Your task to perform on an android device: turn on sleep mode Image 0: 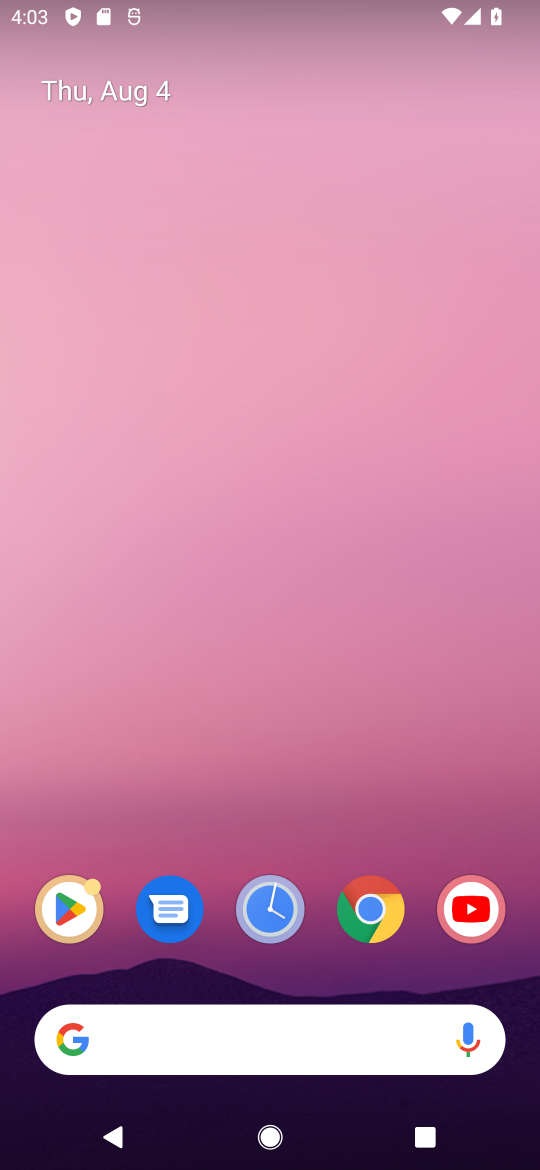
Step 0: drag from (401, 226) to (229, 0)
Your task to perform on an android device: turn on sleep mode Image 1: 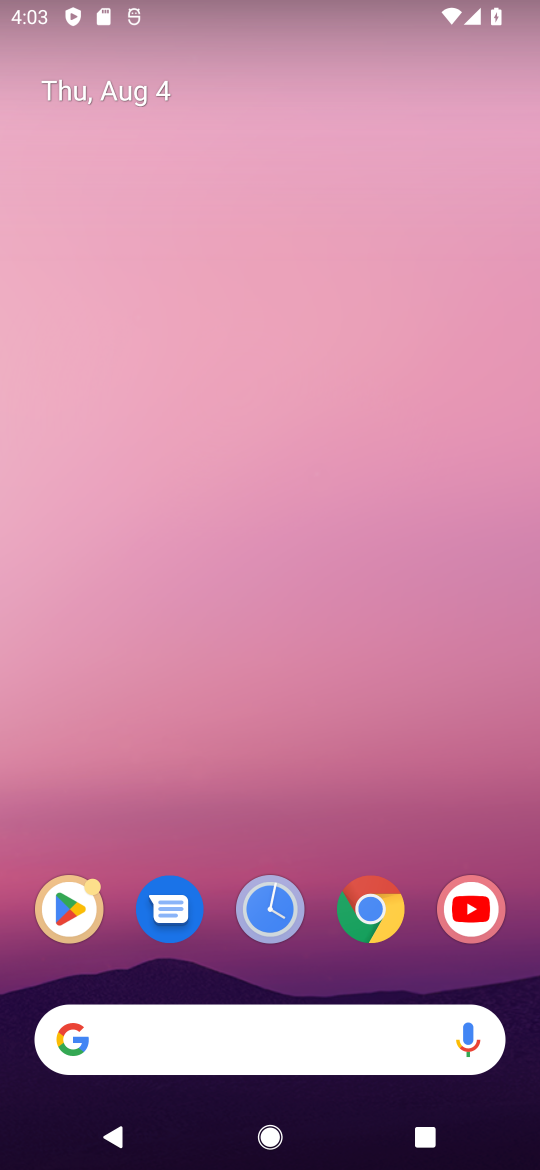
Step 1: drag from (307, 123) to (407, 13)
Your task to perform on an android device: turn on sleep mode Image 2: 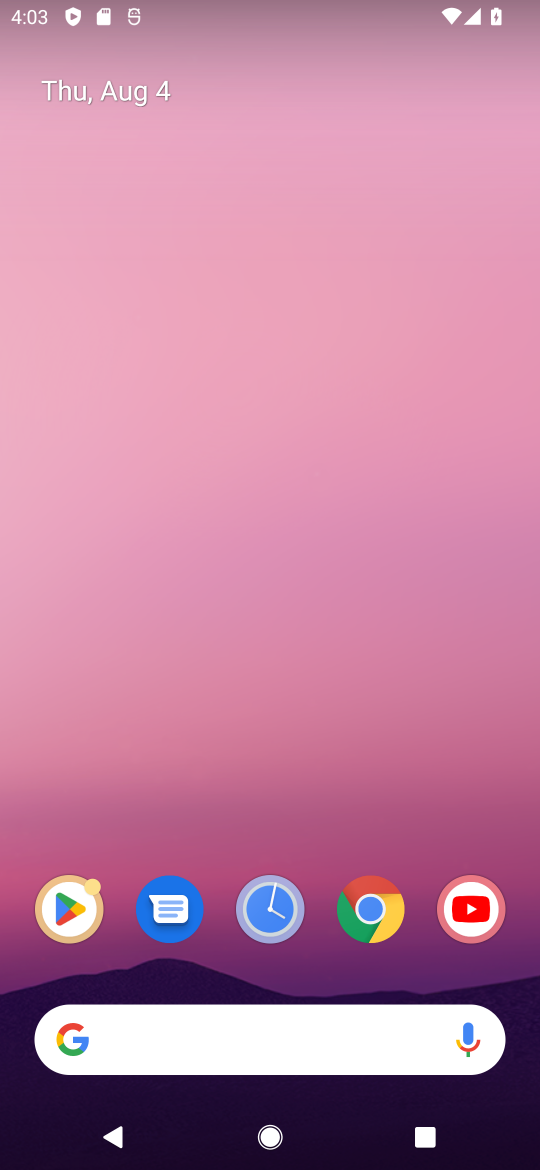
Step 2: drag from (320, 770) to (526, 374)
Your task to perform on an android device: turn on sleep mode Image 3: 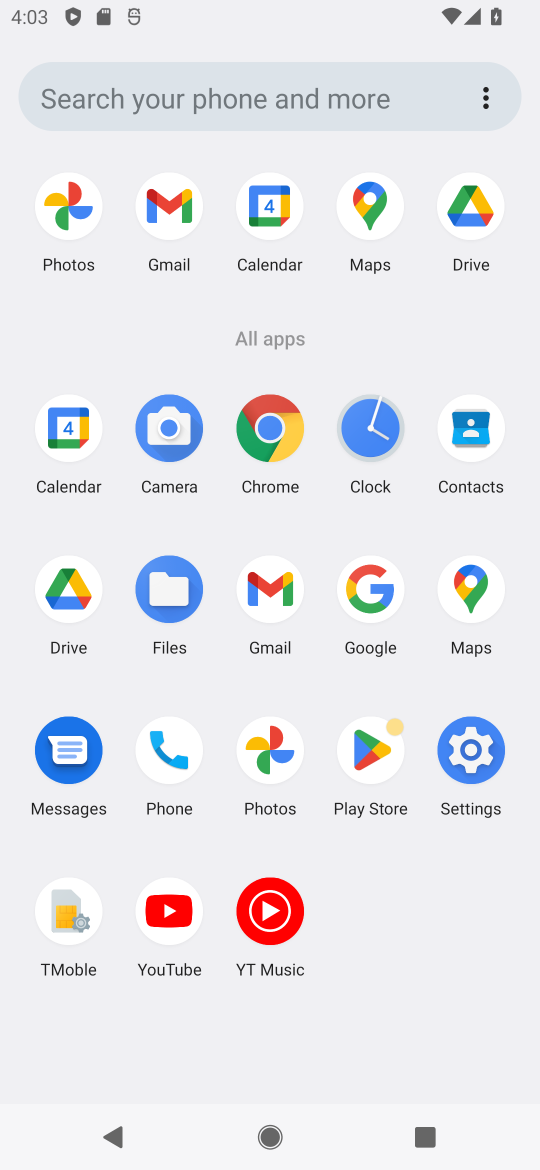
Step 3: click (467, 768)
Your task to perform on an android device: turn on sleep mode Image 4: 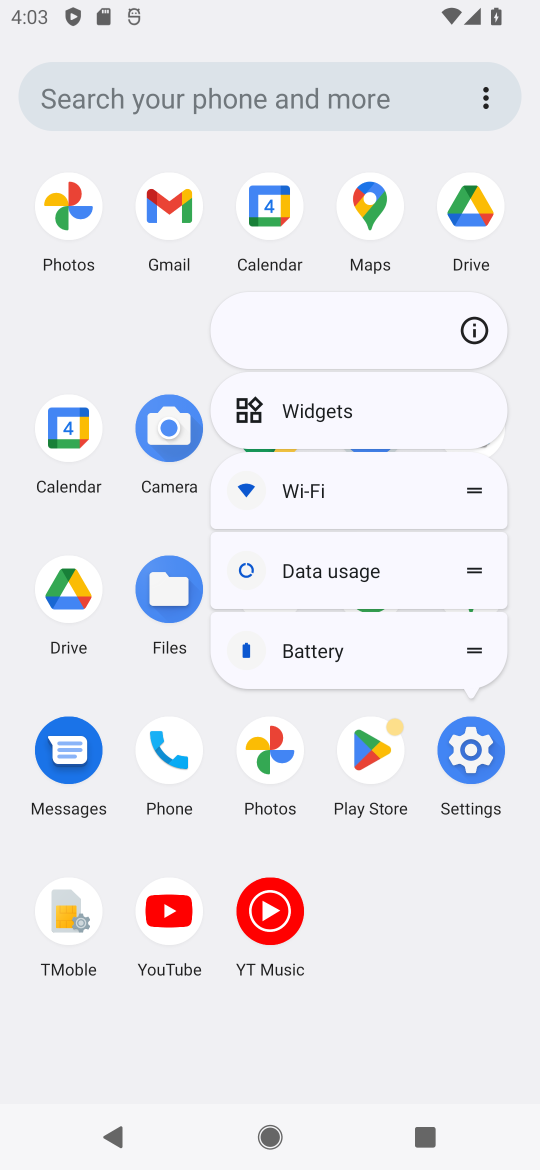
Step 4: click (480, 739)
Your task to perform on an android device: turn on sleep mode Image 5: 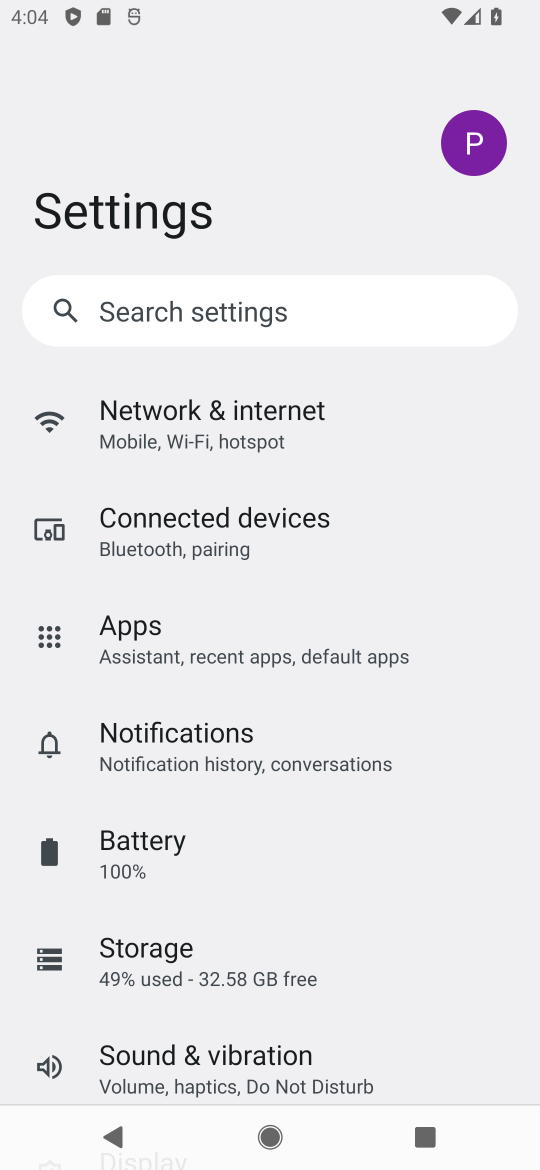
Step 5: drag from (287, 894) to (308, 391)
Your task to perform on an android device: turn on sleep mode Image 6: 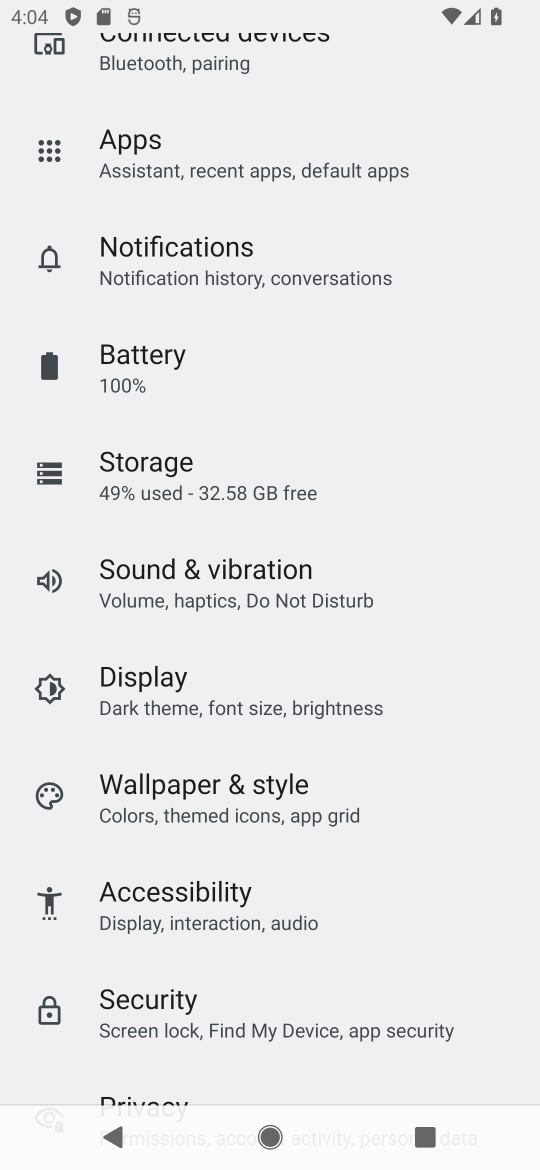
Step 6: click (177, 1097)
Your task to perform on an android device: turn on sleep mode Image 7: 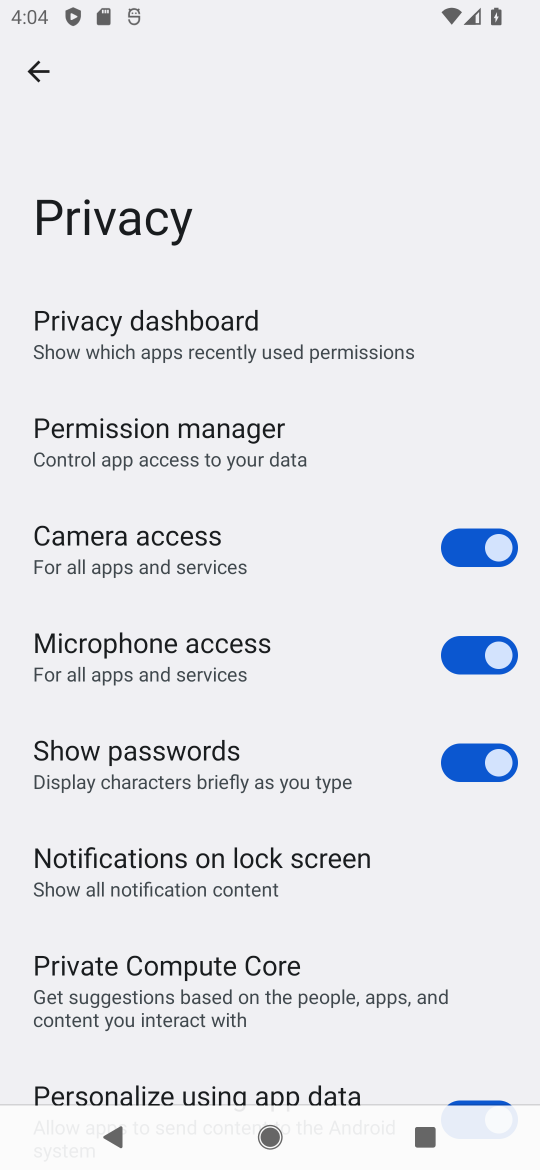
Step 7: click (37, 72)
Your task to perform on an android device: turn on sleep mode Image 8: 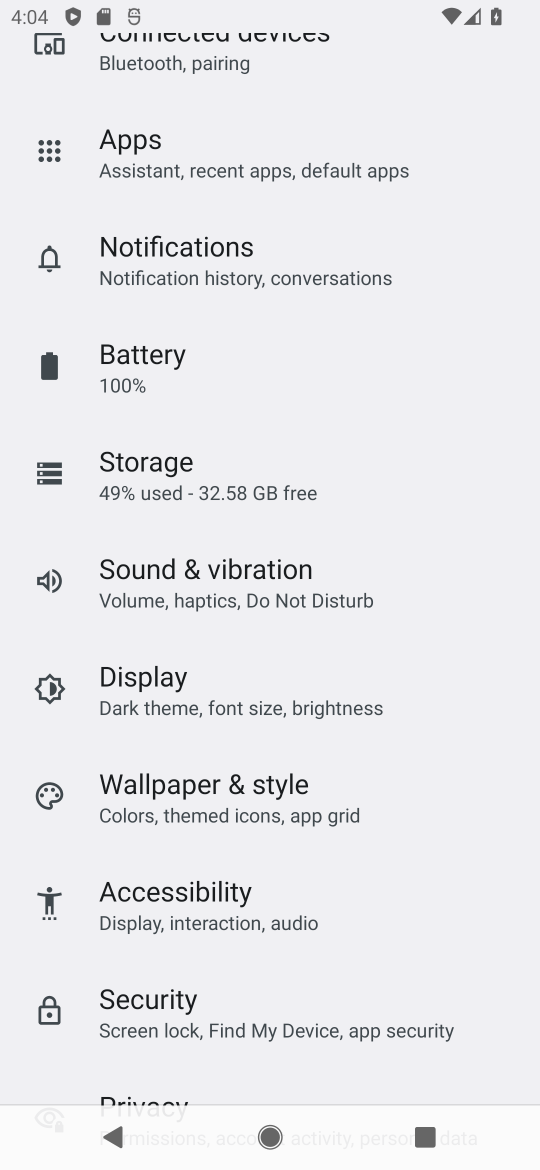
Step 8: drag from (335, 1062) to (325, 455)
Your task to perform on an android device: turn on sleep mode Image 9: 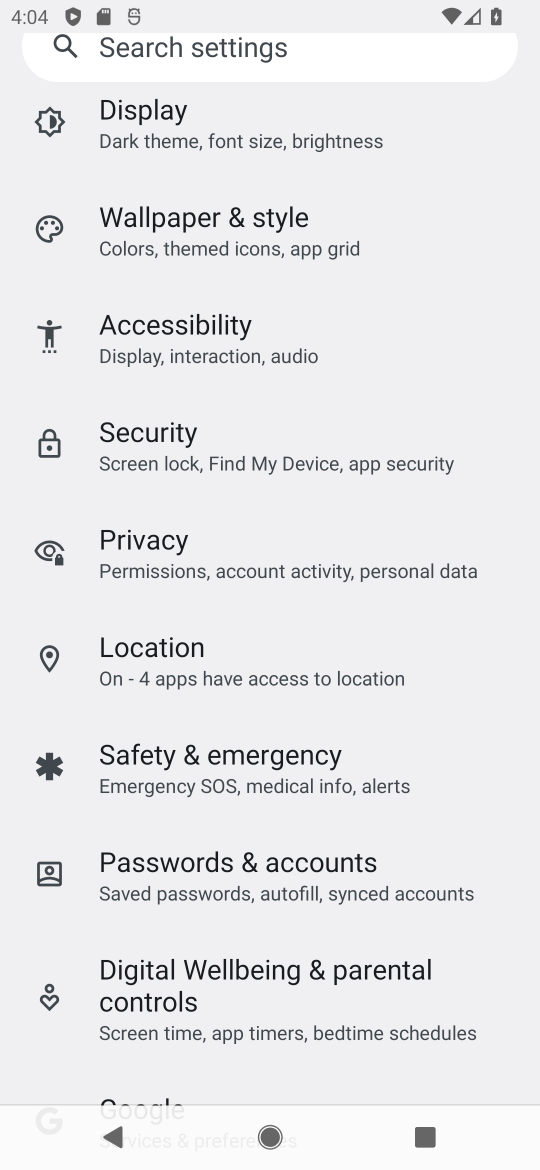
Step 9: click (137, 89)
Your task to perform on an android device: turn on sleep mode Image 10: 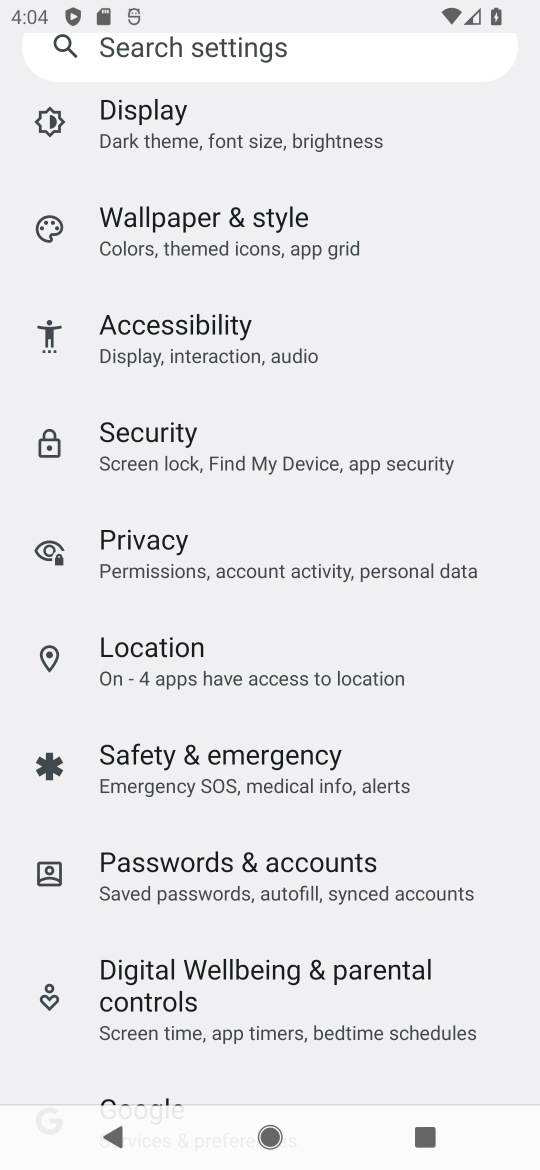
Step 10: click (306, 129)
Your task to perform on an android device: turn on sleep mode Image 11: 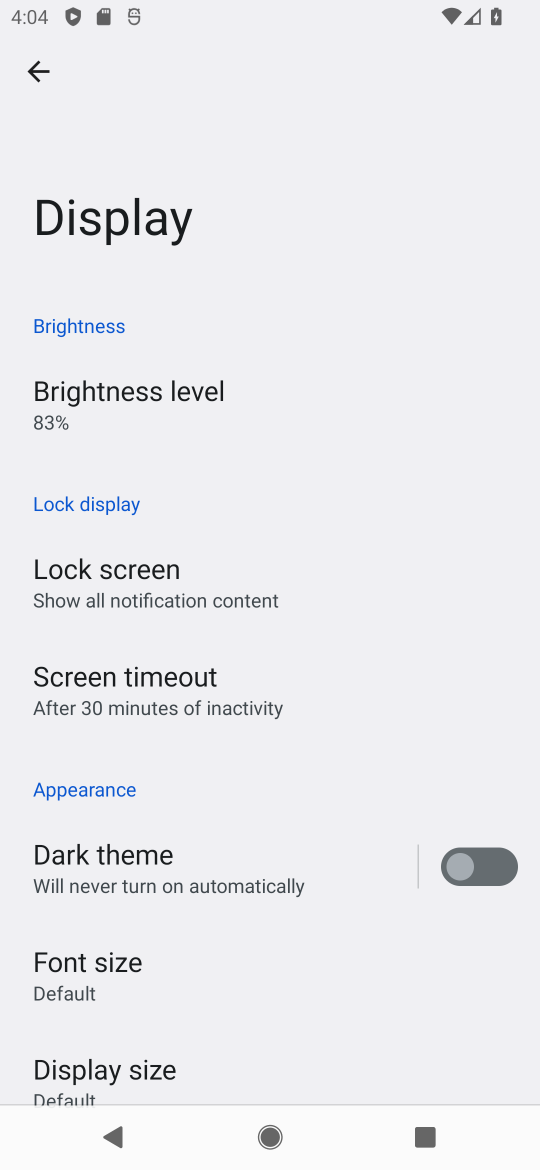
Step 11: task complete